Your task to perform on an android device: open app "Google Chat" Image 0: 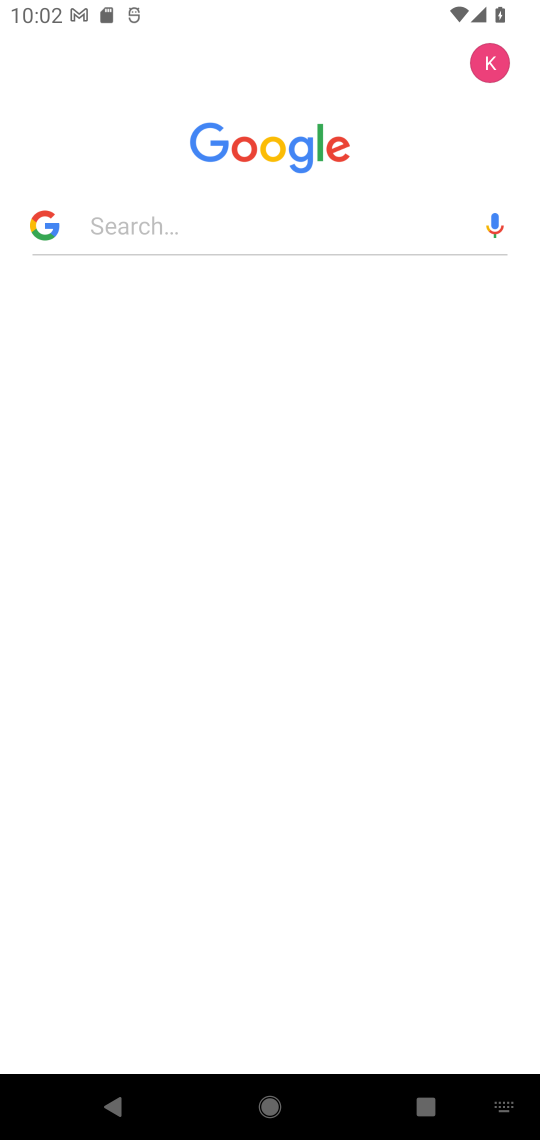
Step 0: press home button
Your task to perform on an android device: open app "Google Chat" Image 1: 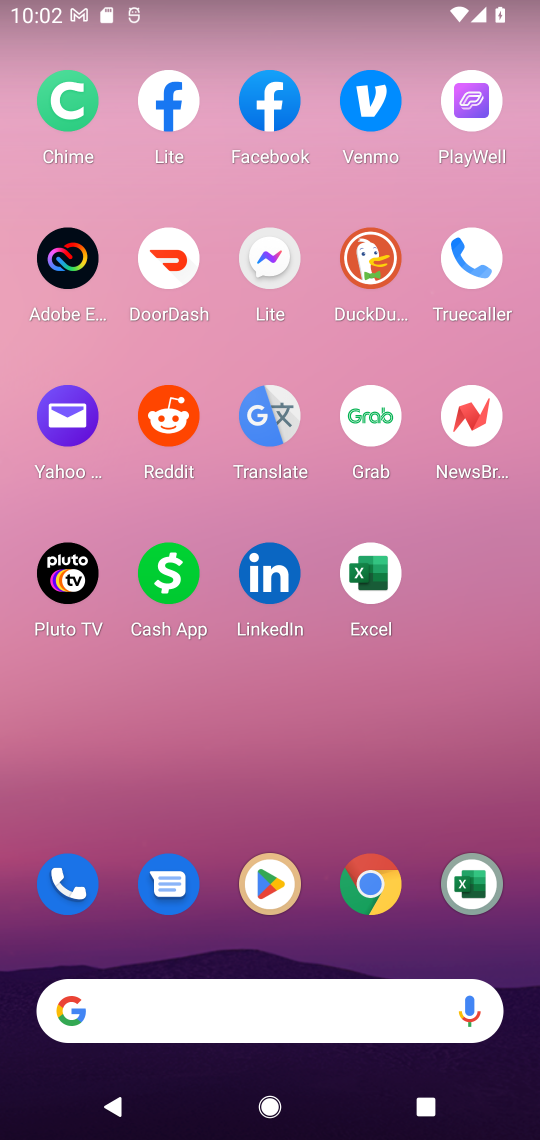
Step 1: click (285, 880)
Your task to perform on an android device: open app "Google Chat" Image 2: 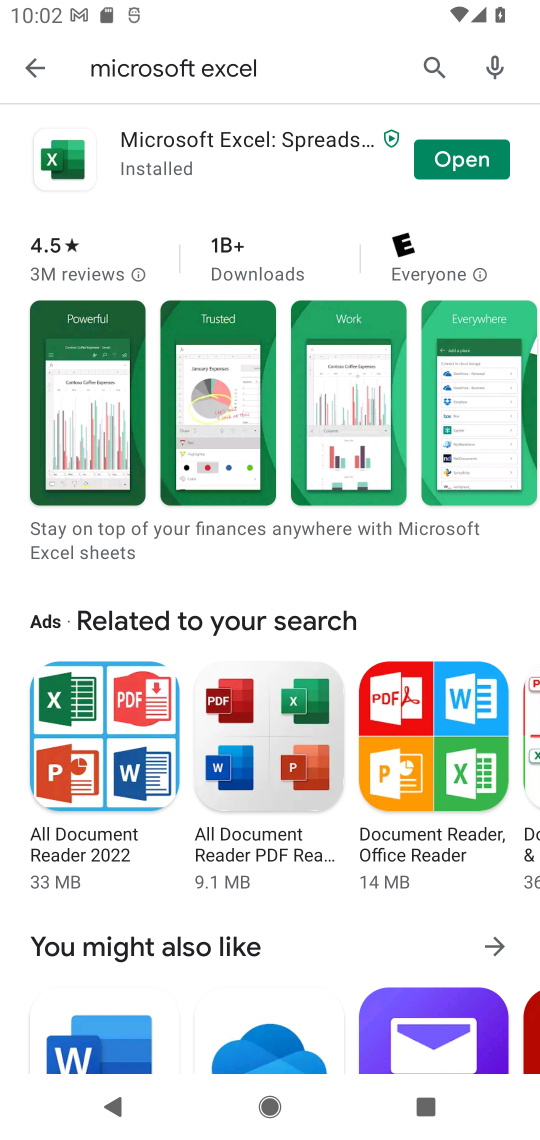
Step 2: click (427, 94)
Your task to perform on an android device: open app "Google Chat" Image 3: 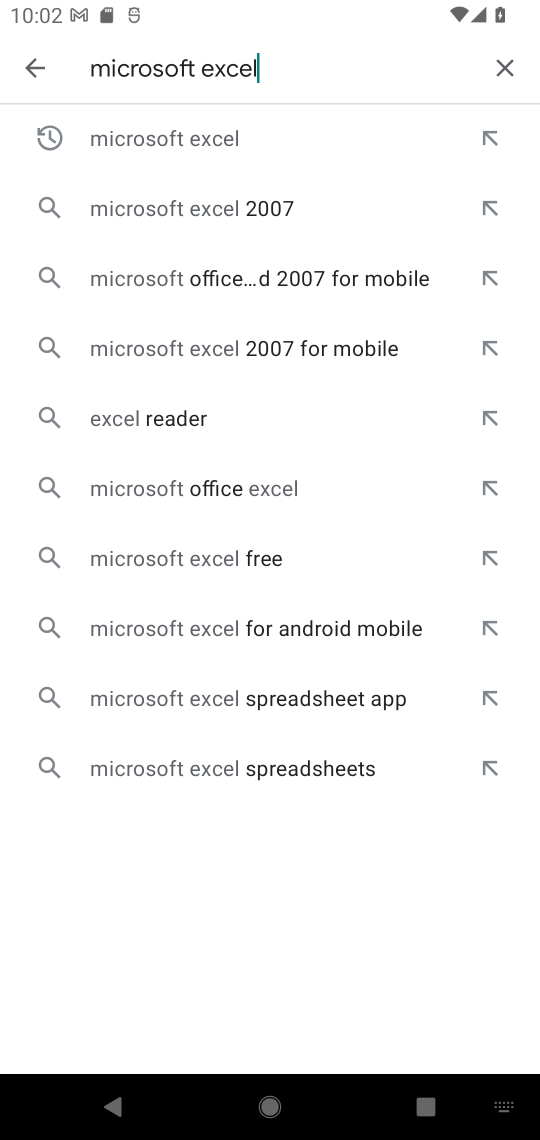
Step 3: click (497, 67)
Your task to perform on an android device: open app "Google Chat" Image 4: 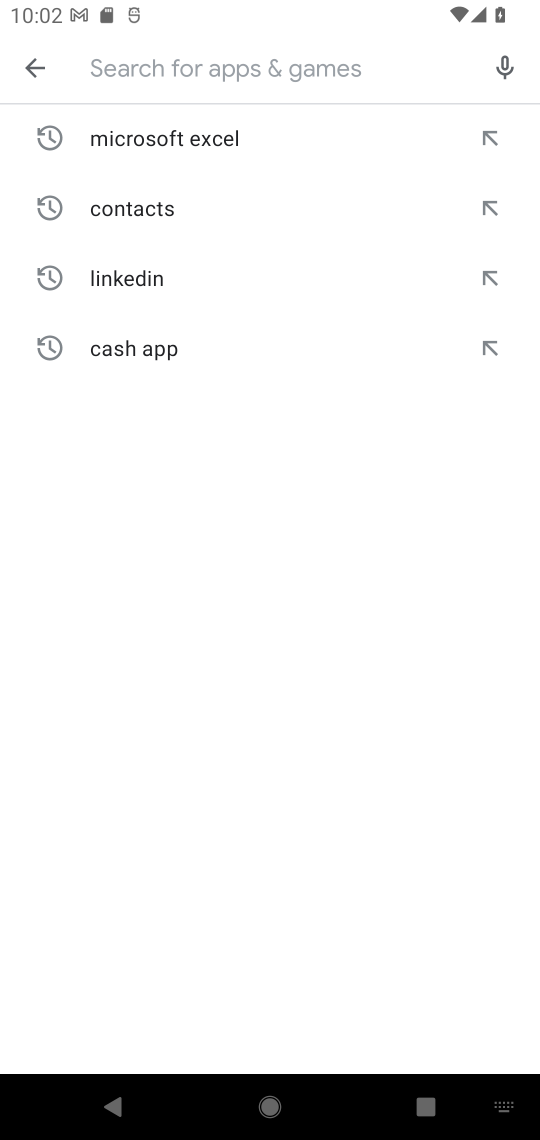
Step 4: type "google chat"
Your task to perform on an android device: open app "Google Chat" Image 5: 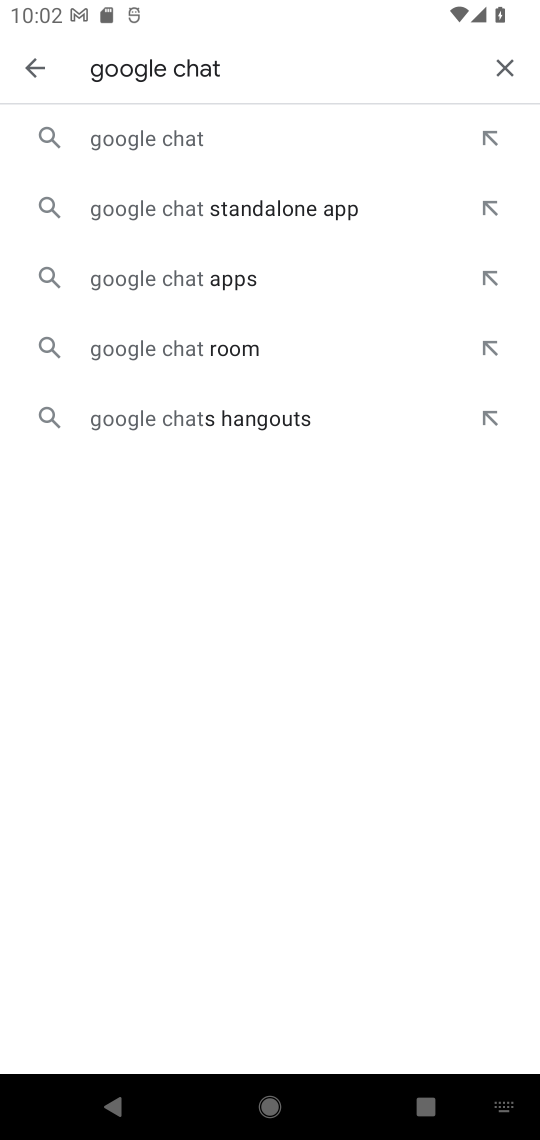
Step 5: click (264, 142)
Your task to perform on an android device: open app "Google Chat" Image 6: 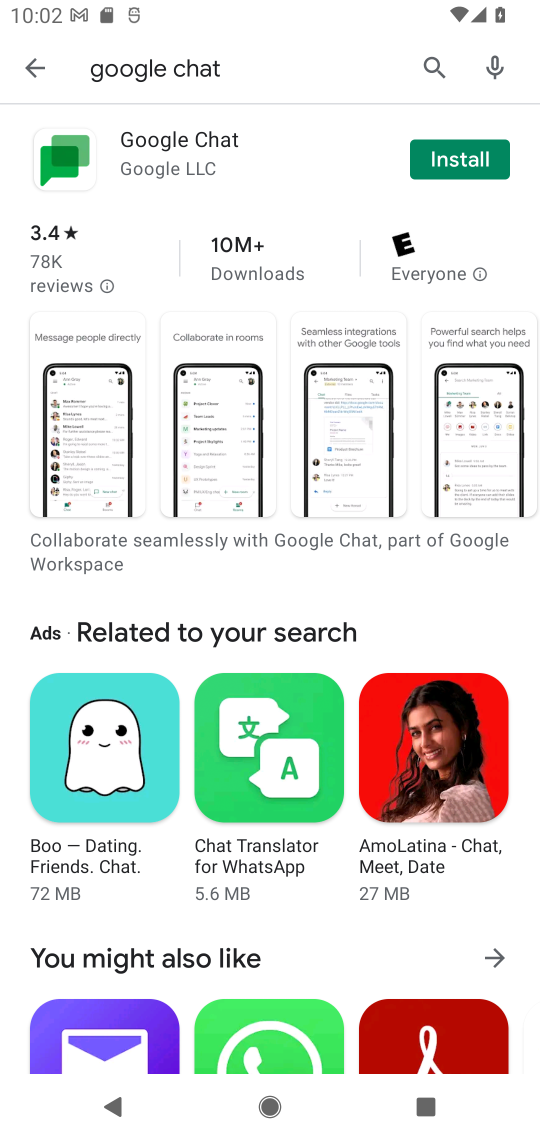
Step 6: click (477, 145)
Your task to perform on an android device: open app "Google Chat" Image 7: 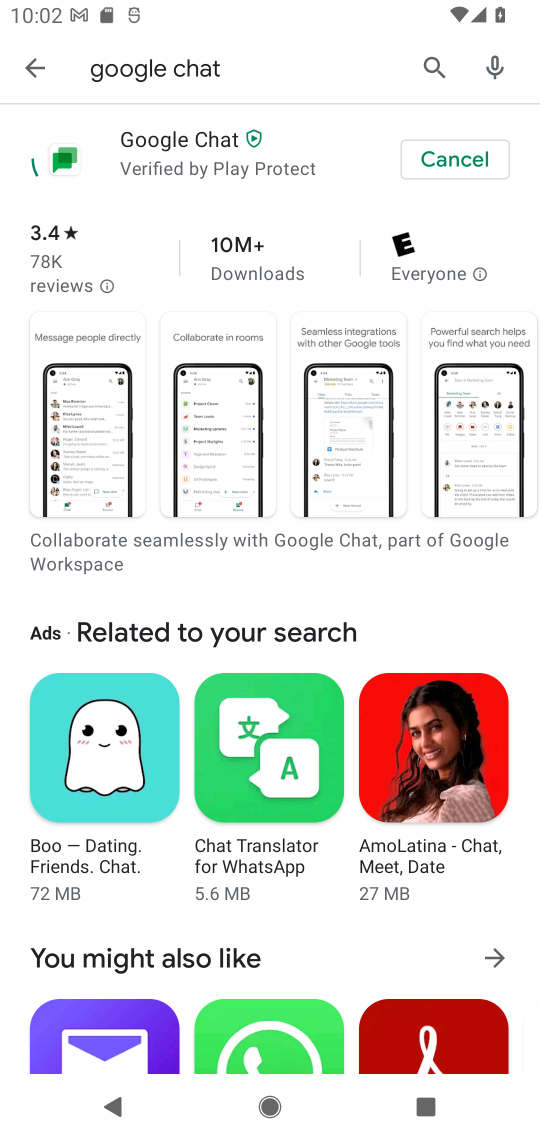
Step 7: task complete